Your task to perform on an android device: stop showing notifications on the lock screen Image 0: 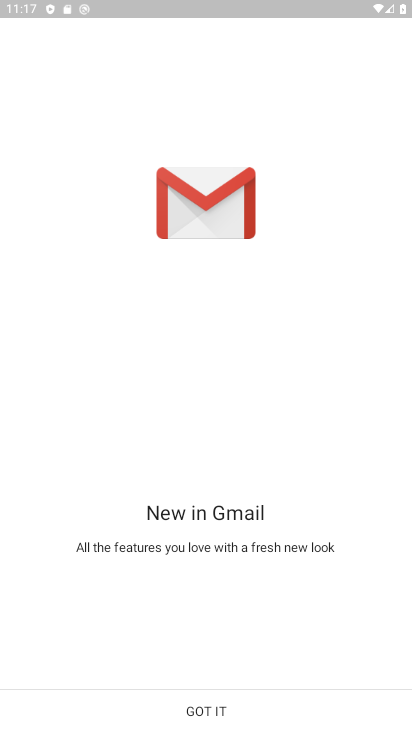
Step 0: click (250, 722)
Your task to perform on an android device: stop showing notifications on the lock screen Image 1: 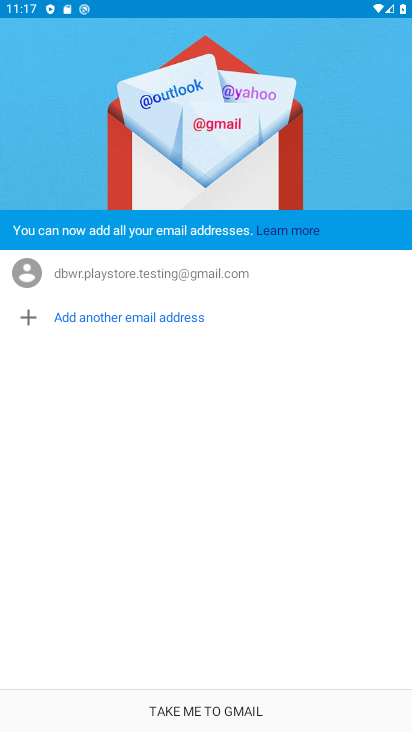
Step 1: press home button
Your task to perform on an android device: stop showing notifications on the lock screen Image 2: 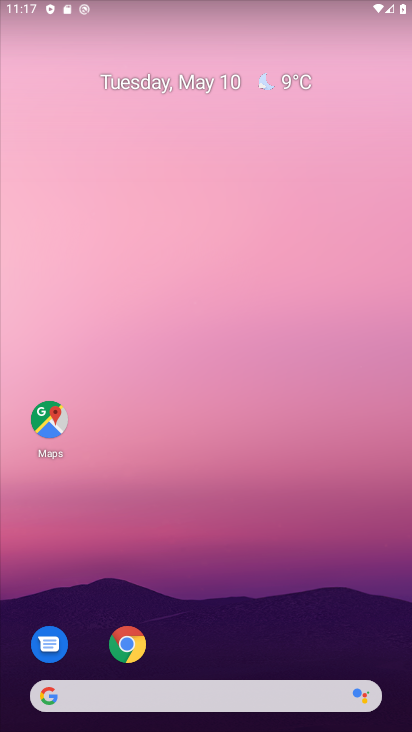
Step 2: drag from (192, 606) to (221, 7)
Your task to perform on an android device: stop showing notifications on the lock screen Image 3: 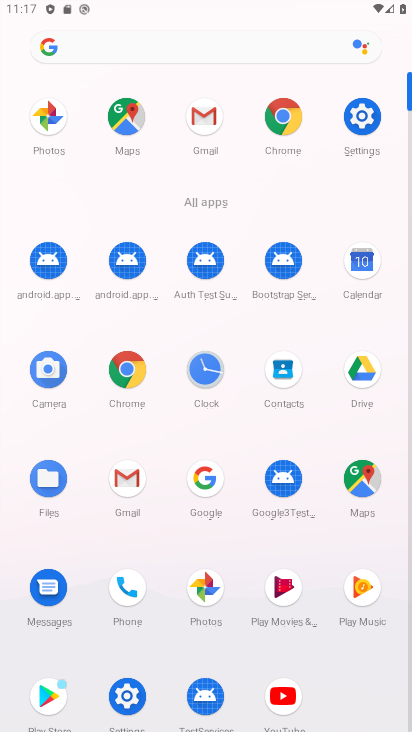
Step 3: click (366, 134)
Your task to perform on an android device: stop showing notifications on the lock screen Image 4: 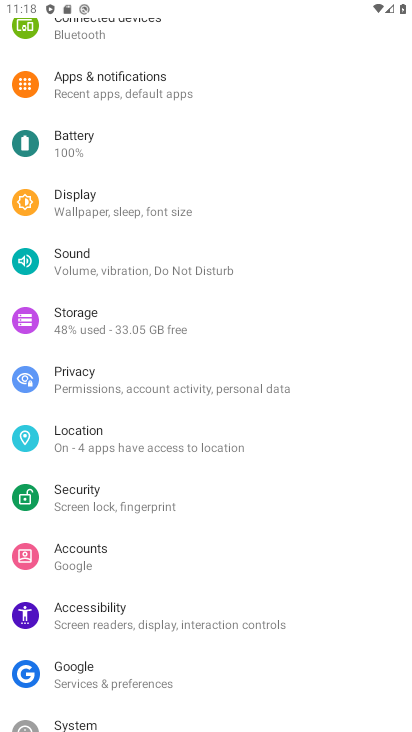
Step 4: click (113, 101)
Your task to perform on an android device: stop showing notifications on the lock screen Image 5: 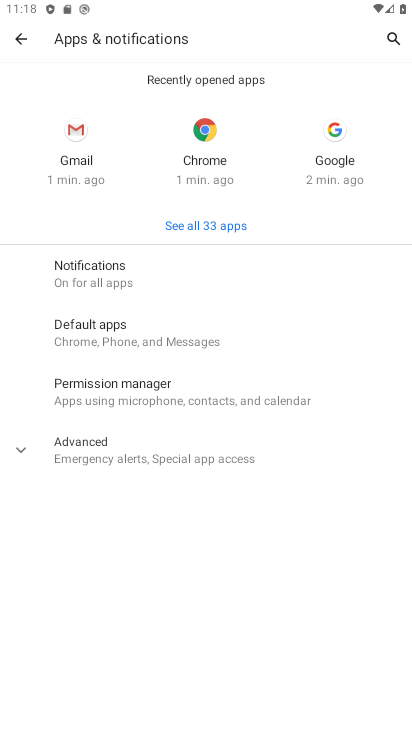
Step 5: click (124, 276)
Your task to perform on an android device: stop showing notifications on the lock screen Image 6: 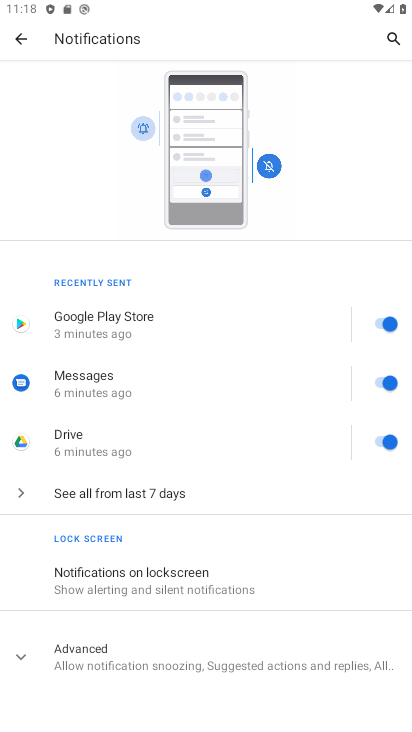
Step 6: click (161, 588)
Your task to perform on an android device: stop showing notifications on the lock screen Image 7: 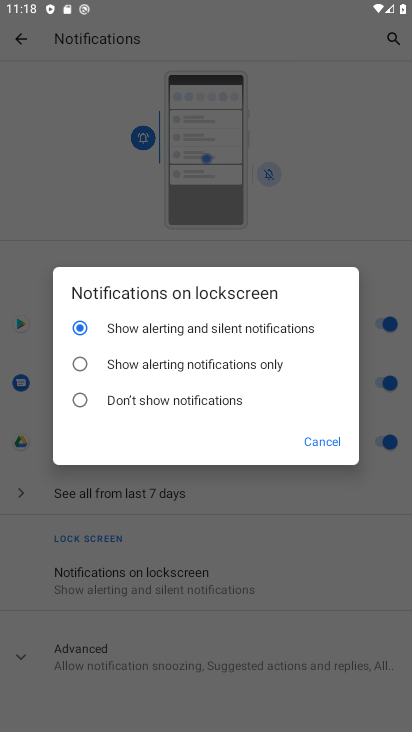
Step 7: click (129, 404)
Your task to perform on an android device: stop showing notifications on the lock screen Image 8: 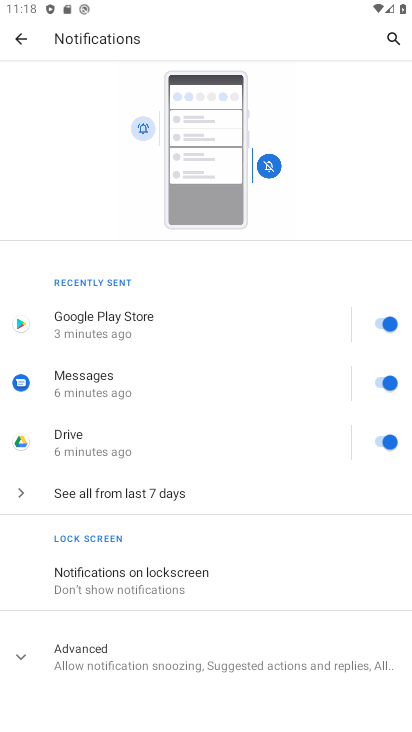
Step 8: task complete